Your task to perform on an android device: turn on the 24-hour format for clock Image 0: 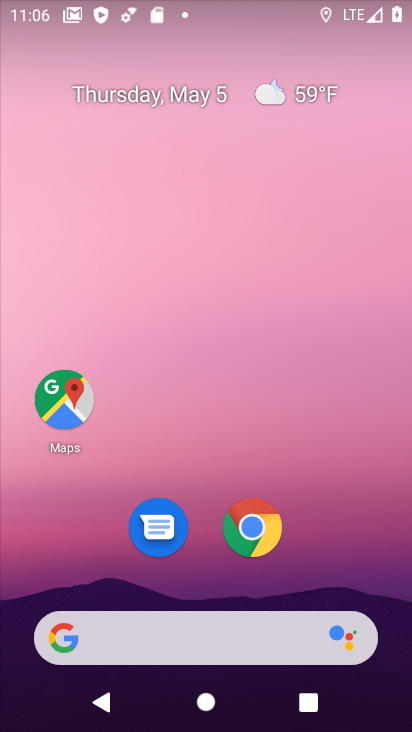
Step 0: drag from (204, 593) to (315, 7)
Your task to perform on an android device: turn on the 24-hour format for clock Image 1: 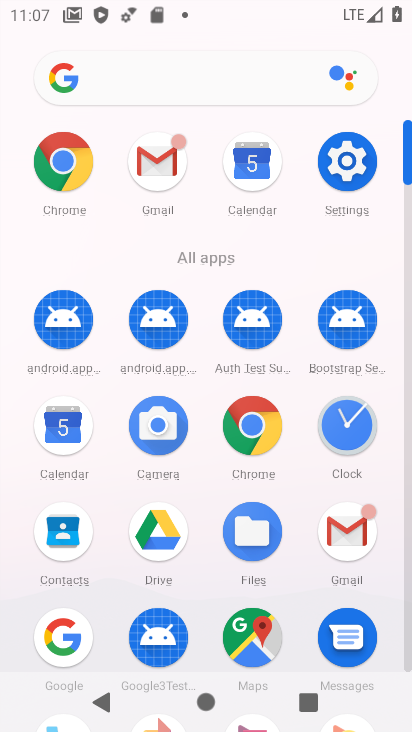
Step 1: click (353, 180)
Your task to perform on an android device: turn on the 24-hour format for clock Image 2: 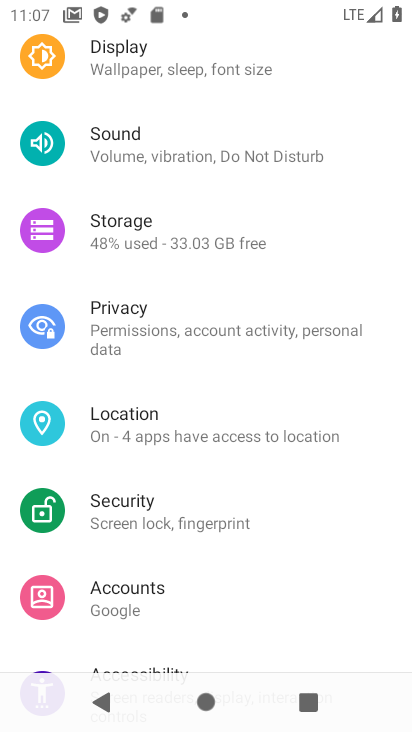
Step 2: drag from (177, 561) to (221, 296)
Your task to perform on an android device: turn on the 24-hour format for clock Image 3: 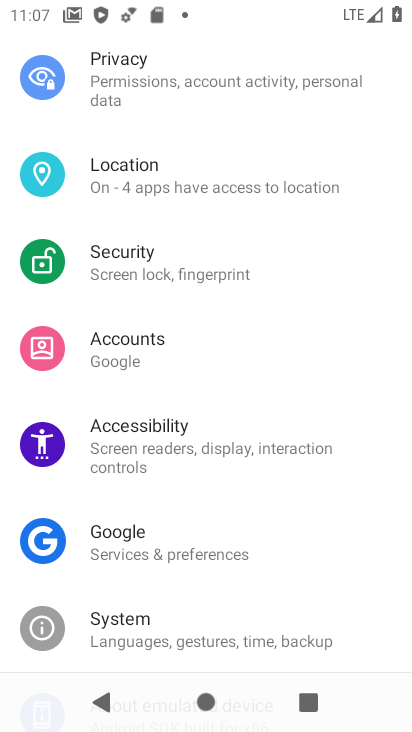
Step 3: click (127, 620)
Your task to perform on an android device: turn on the 24-hour format for clock Image 4: 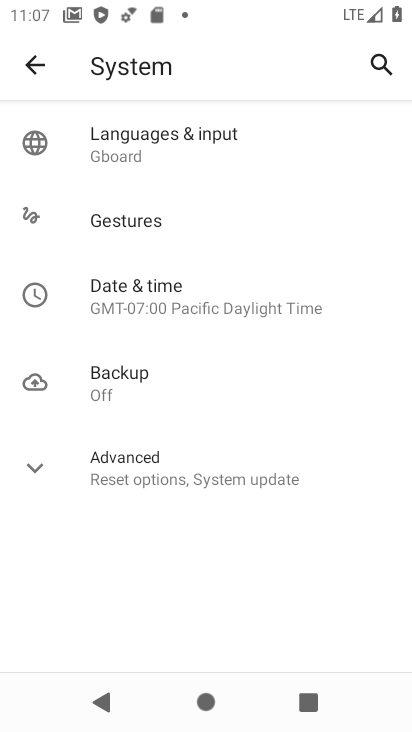
Step 4: click (197, 299)
Your task to perform on an android device: turn on the 24-hour format for clock Image 5: 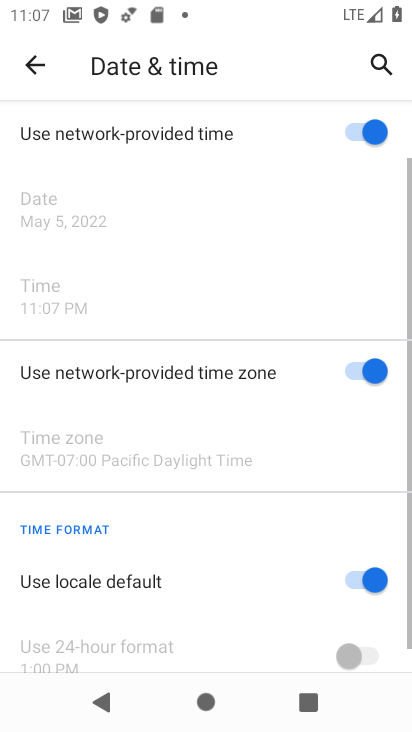
Step 5: drag from (254, 553) to (272, 340)
Your task to perform on an android device: turn on the 24-hour format for clock Image 6: 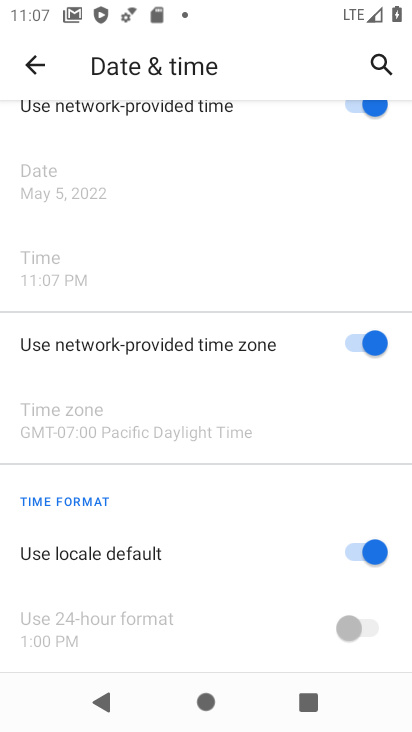
Step 6: click (349, 553)
Your task to perform on an android device: turn on the 24-hour format for clock Image 7: 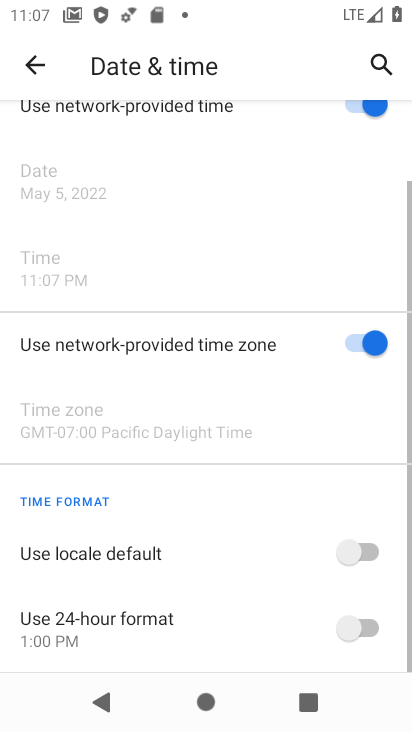
Step 7: click (377, 629)
Your task to perform on an android device: turn on the 24-hour format for clock Image 8: 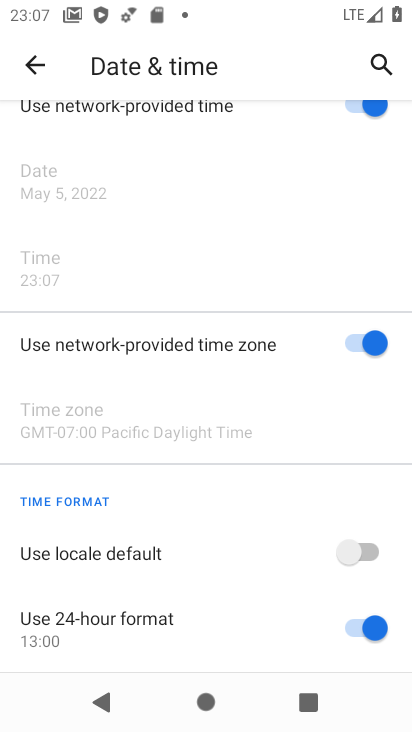
Step 8: task complete